Your task to perform on an android device: allow cookies in the chrome app Image 0: 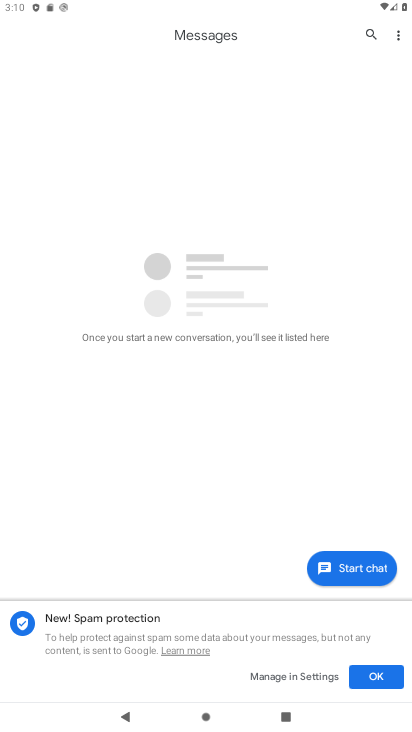
Step 0: press home button
Your task to perform on an android device: allow cookies in the chrome app Image 1: 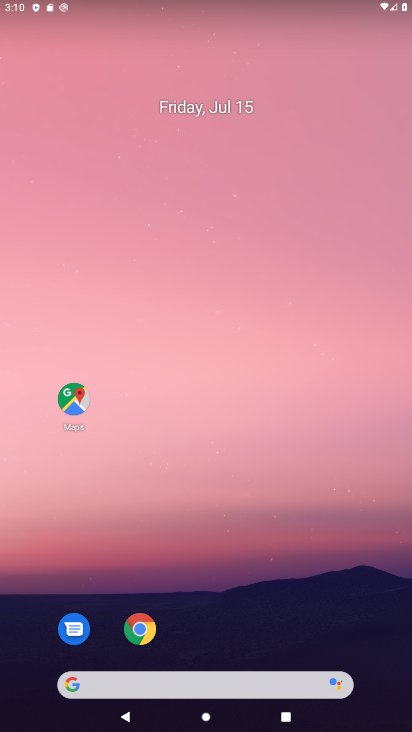
Step 1: click (137, 634)
Your task to perform on an android device: allow cookies in the chrome app Image 2: 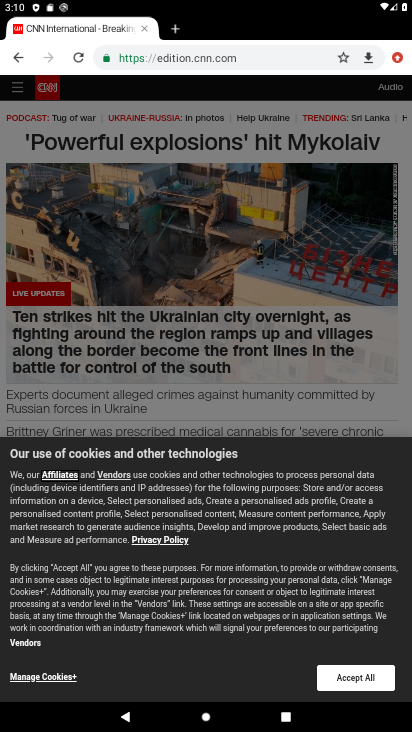
Step 2: click (395, 64)
Your task to perform on an android device: allow cookies in the chrome app Image 3: 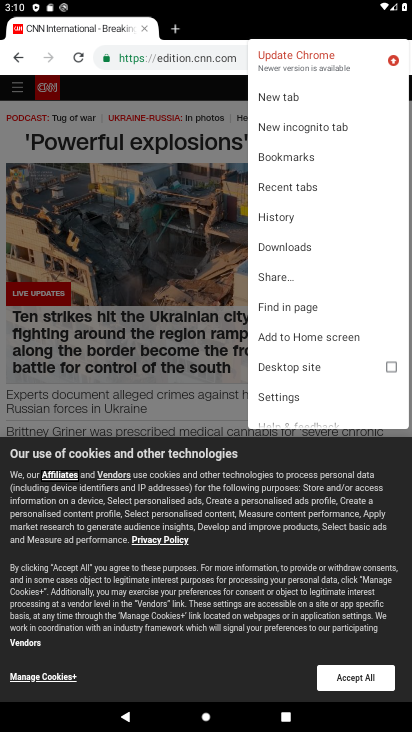
Step 3: click (291, 402)
Your task to perform on an android device: allow cookies in the chrome app Image 4: 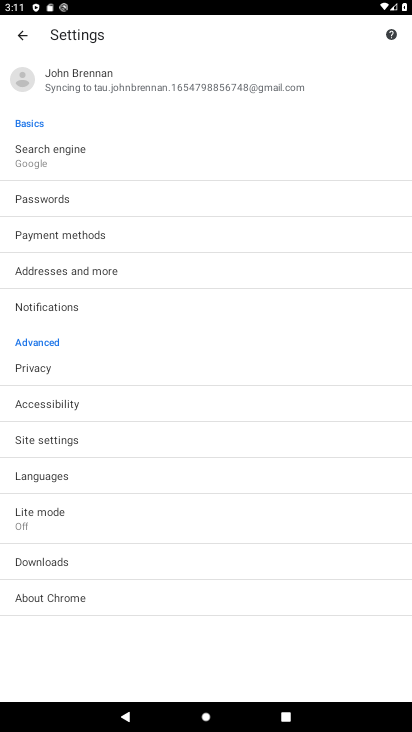
Step 4: click (65, 440)
Your task to perform on an android device: allow cookies in the chrome app Image 5: 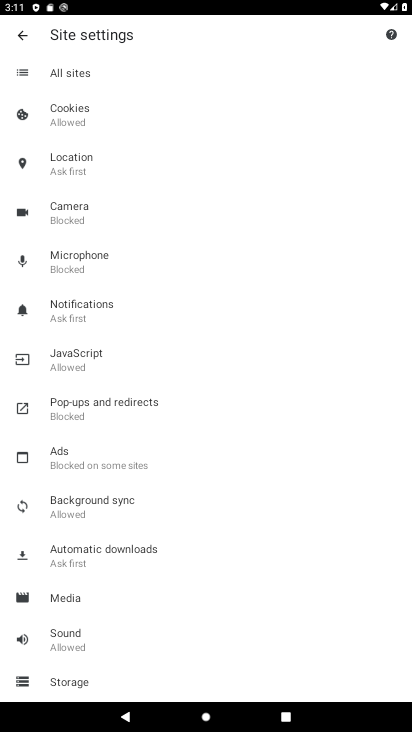
Step 5: click (98, 112)
Your task to perform on an android device: allow cookies in the chrome app Image 6: 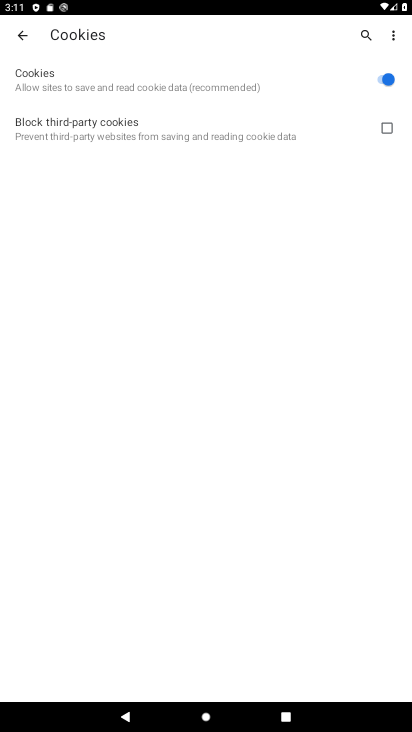
Step 6: task complete